Your task to perform on an android device: turn off picture-in-picture Image 0: 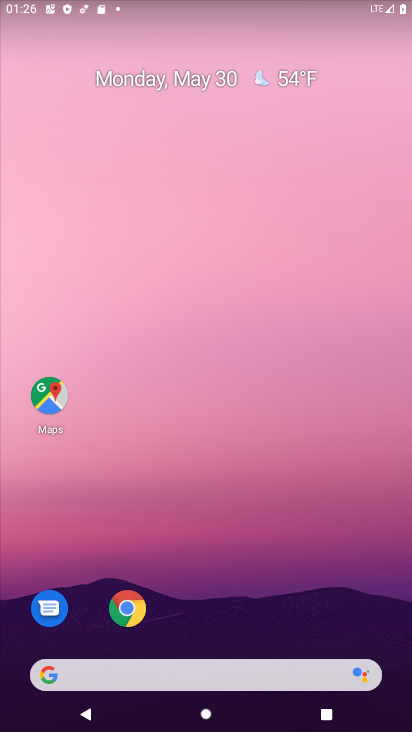
Step 0: drag from (256, 598) to (240, 198)
Your task to perform on an android device: turn off picture-in-picture Image 1: 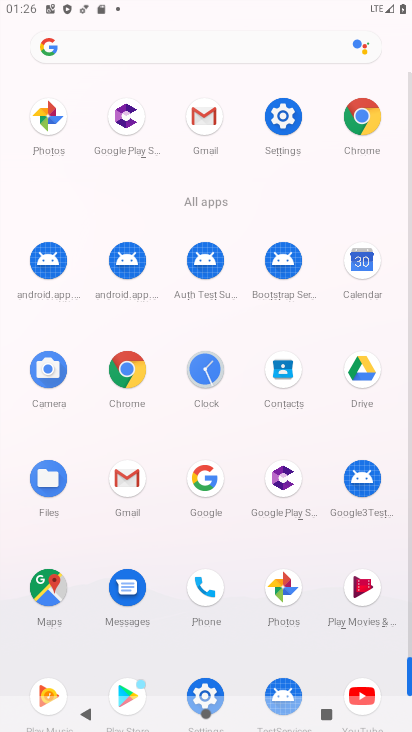
Step 1: click (125, 365)
Your task to perform on an android device: turn off picture-in-picture Image 2: 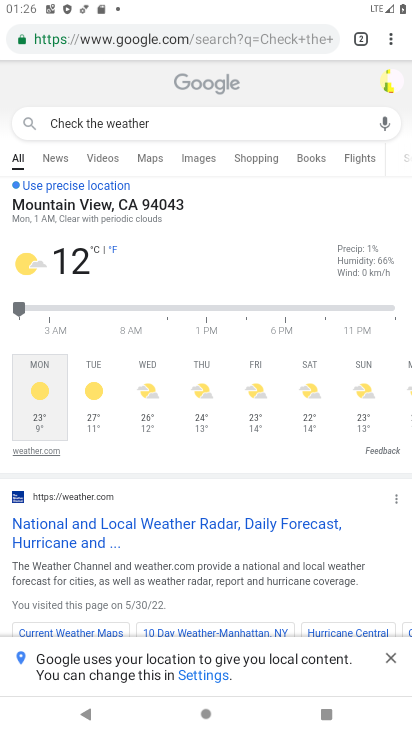
Step 2: click (381, 36)
Your task to perform on an android device: turn off picture-in-picture Image 3: 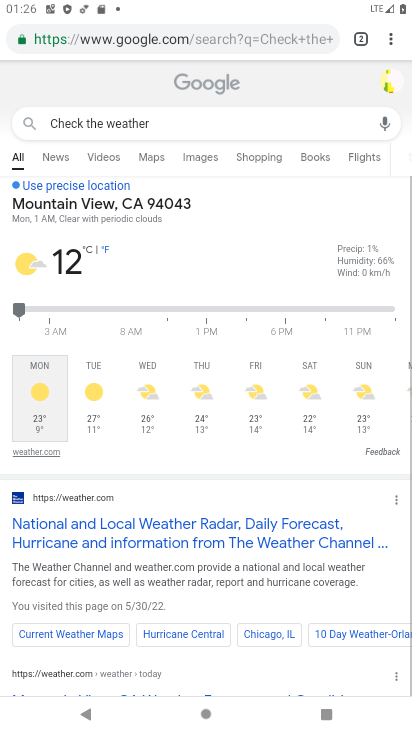
Step 3: click (394, 43)
Your task to perform on an android device: turn off picture-in-picture Image 4: 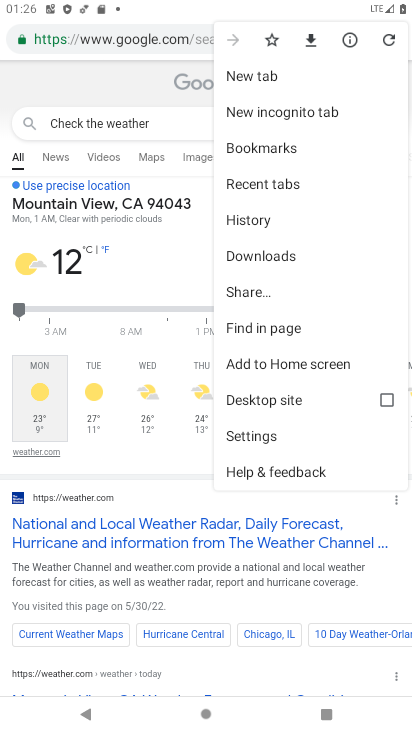
Step 4: click (254, 439)
Your task to perform on an android device: turn off picture-in-picture Image 5: 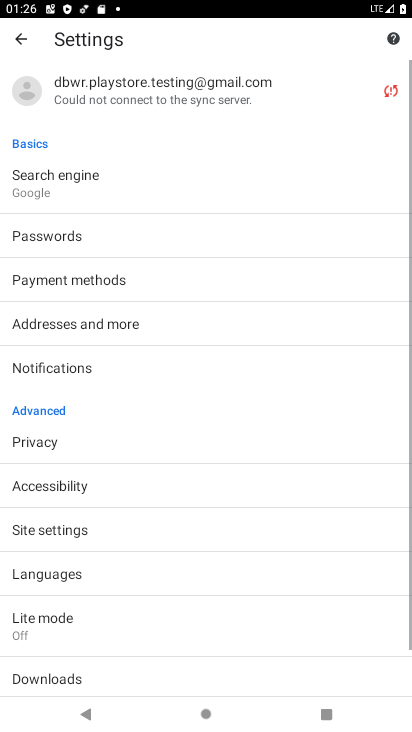
Step 5: drag from (231, 481) to (209, 193)
Your task to perform on an android device: turn off picture-in-picture Image 6: 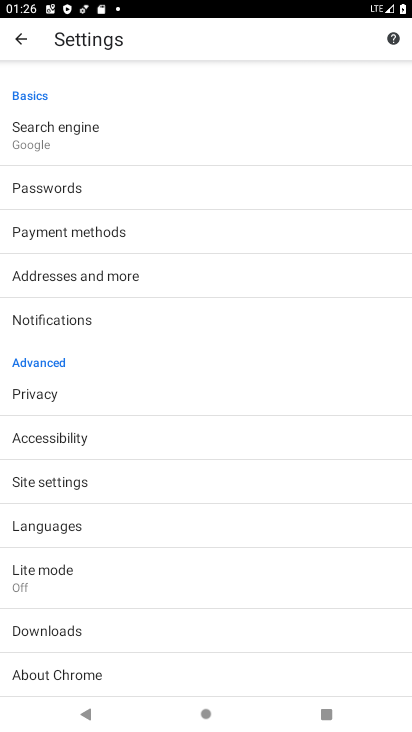
Step 6: drag from (147, 552) to (173, 331)
Your task to perform on an android device: turn off picture-in-picture Image 7: 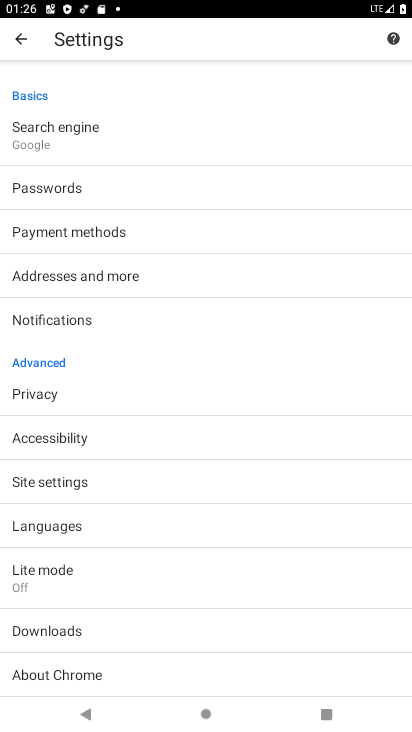
Step 7: click (96, 479)
Your task to perform on an android device: turn off picture-in-picture Image 8: 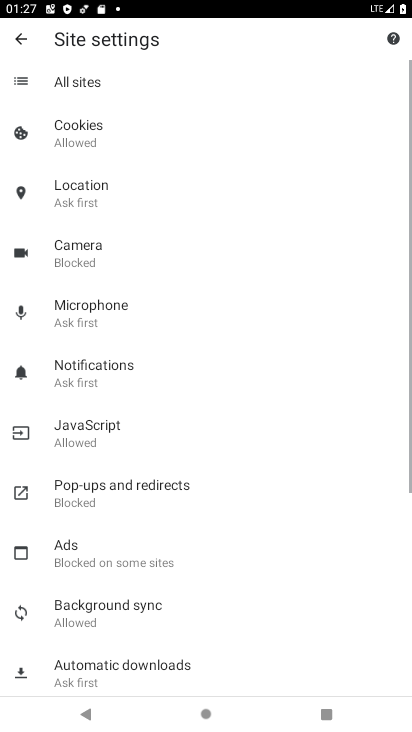
Step 8: drag from (172, 561) to (180, 304)
Your task to perform on an android device: turn off picture-in-picture Image 9: 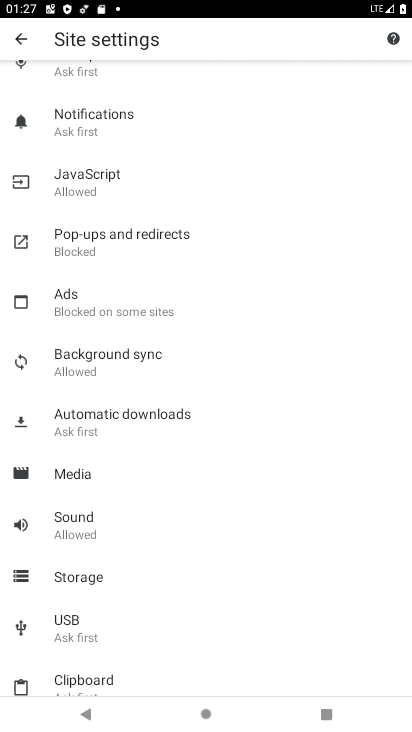
Step 9: drag from (138, 546) to (187, 225)
Your task to perform on an android device: turn off picture-in-picture Image 10: 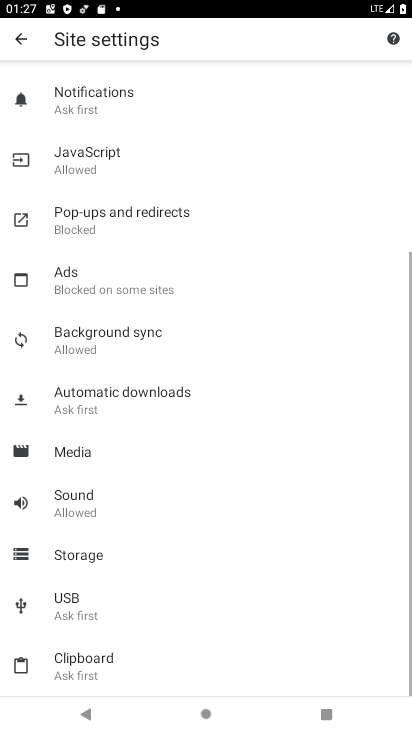
Step 10: drag from (155, 616) to (176, 197)
Your task to perform on an android device: turn off picture-in-picture Image 11: 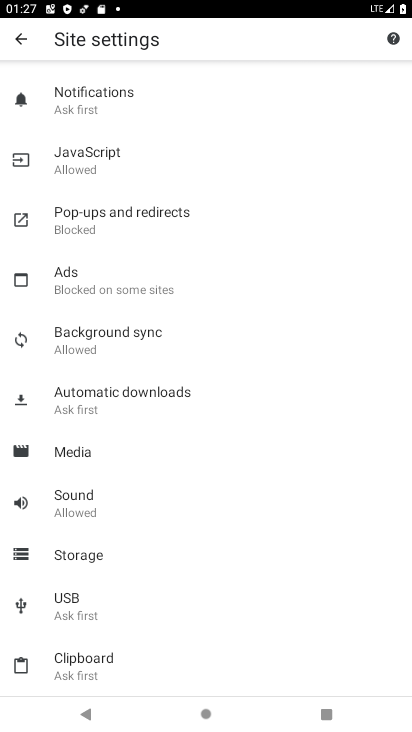
Step 11: drag from (178, 158) to (156, 668)
Your task to perform on an android device: turn off picture-in-picture Image 12: 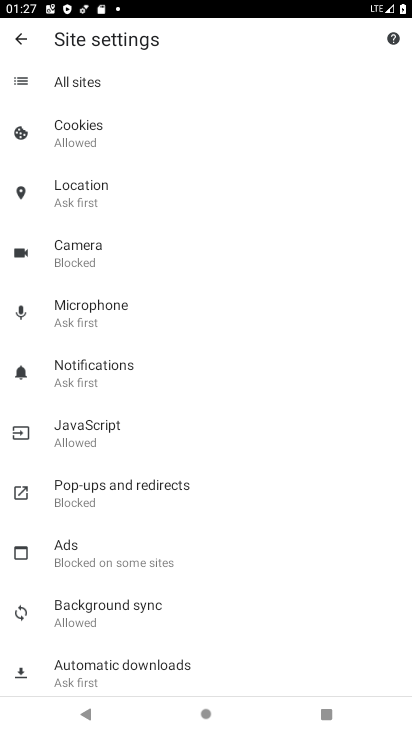
Step 12: drag from (111, 567) to (140, 453)
Your task to perform on an android device: turn off picture-in-picture Image 13: 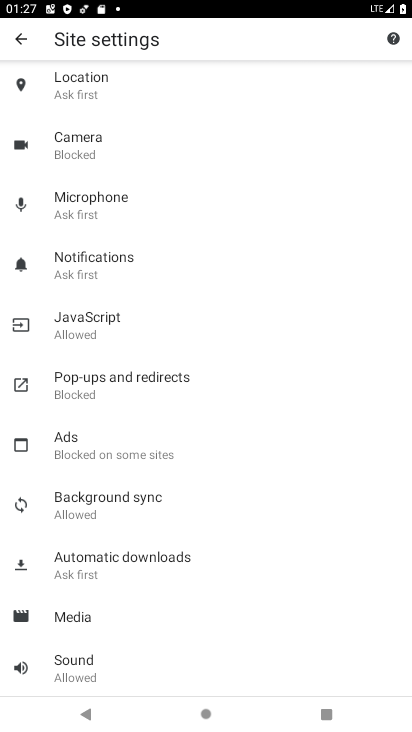
Step 13: click (117, 334)
Your task to perform on an android device: turn off picture-in-picture Image 14: 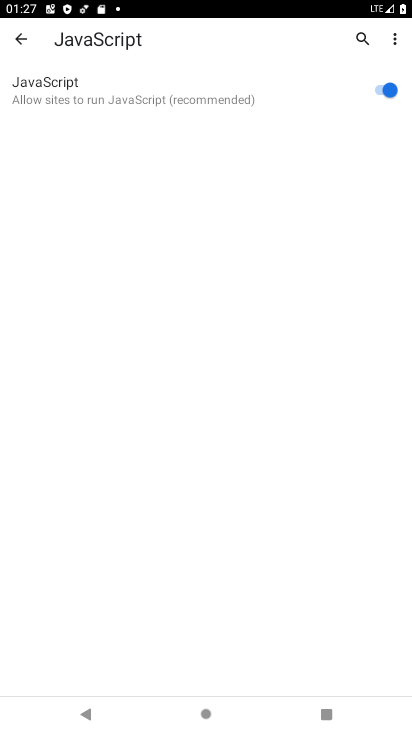
Step 14: press home button
Your task to perform on an android device: turn off picture-in-picture Image 15: 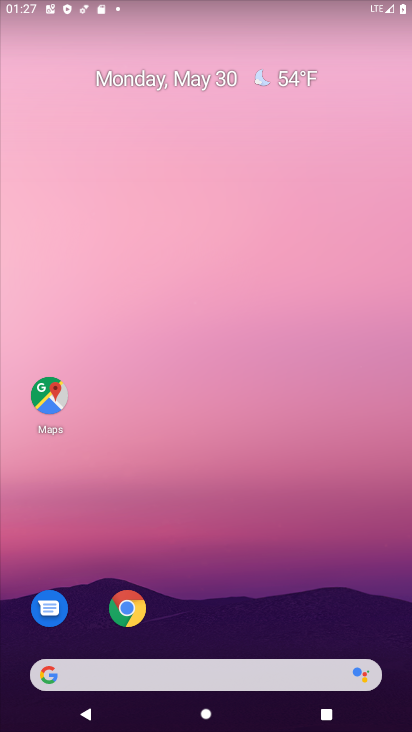
Step 15: drag from (249, 552) to (236, 261)
Your task to perform on an android device: turn off picture-in-picture Image 16: 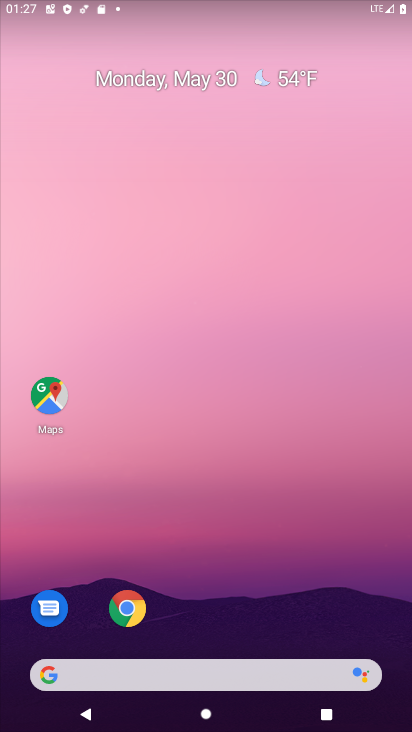
Step 16: drag from (243, 623) to (284, 174)
Your task to perform on an android device: turn off picture-in-picture Image 17: 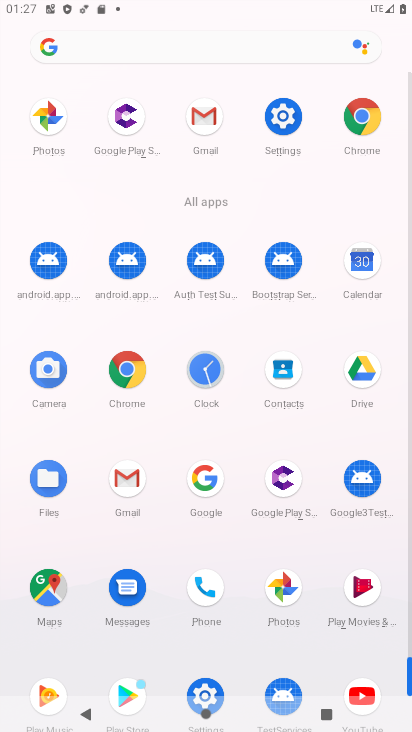
Step 17: click (273, 105)
Your task to perform on an android device: turn off picture-in-picture Image 18: 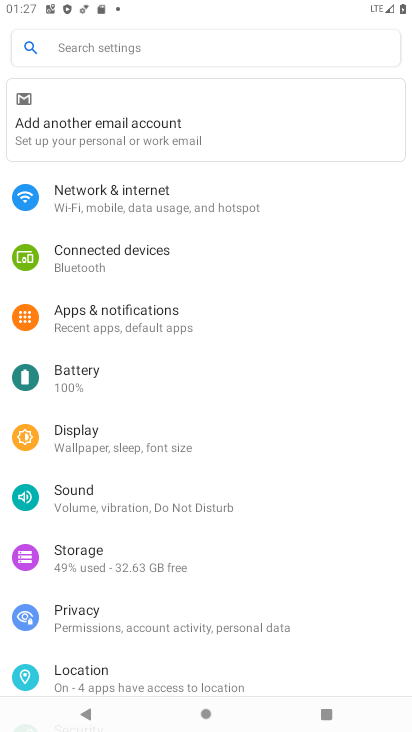
Step 18: click (162, 299)
Your task to perform on an android device: turn off picture-in-picture Image 19: 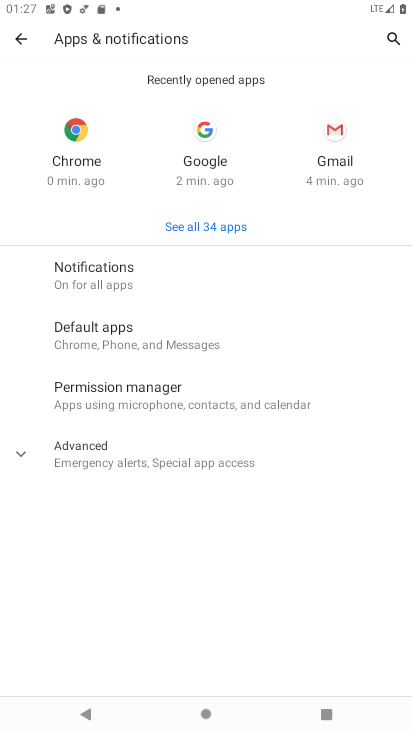
Step 19: click (194, 464)
Your task to perform on an android device: turn off picture-in-picture Image 20: 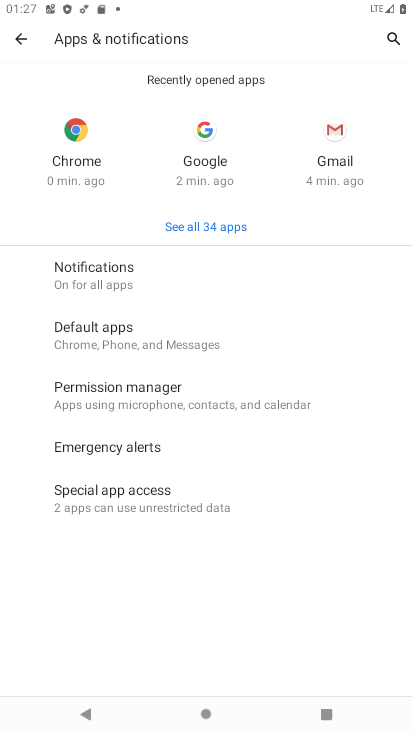
Step 20: click (176, 502)
Your task to perform on an android device: turn off picture-in-picture Image 21: 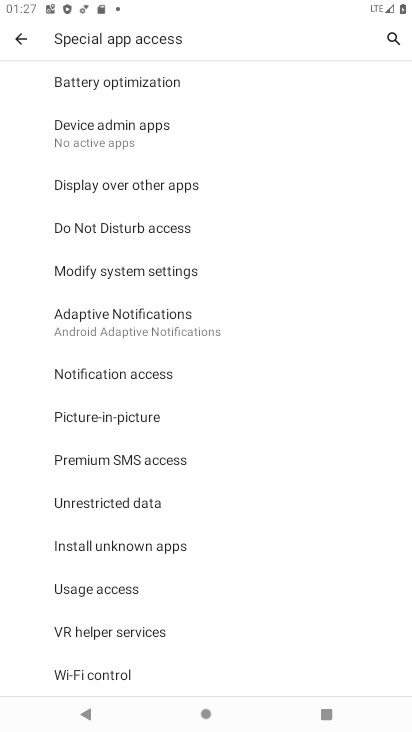
Step 21: click (153, 424)
Your task to perform on an android device: turn off picture-in-picture Image 22: 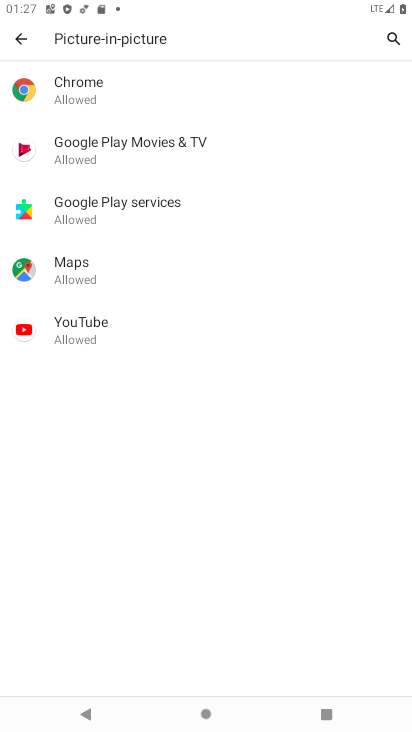
Step 22: click (104, 338)
Your task to perform on an android device: turn off picture-in-picture Image 23: 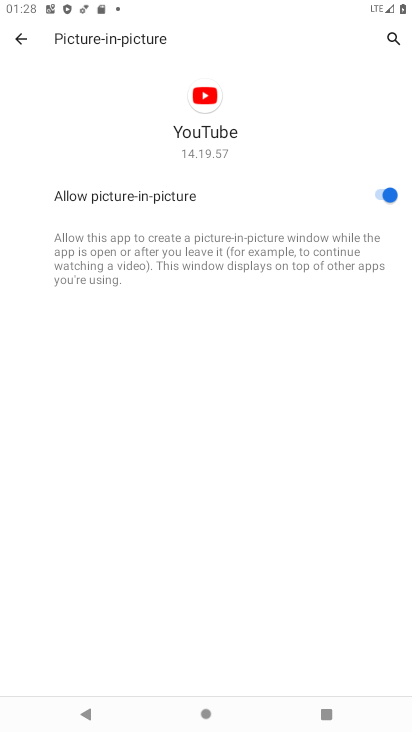
Step 23: click (371, 182)
Your task to perform on an android device: turn off picture-in-picture Image 24: 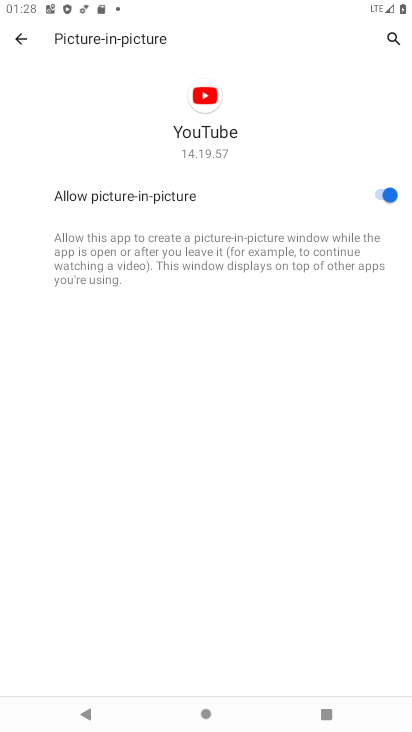
Step 24: task complete